Your task to perform on an android device: Search for sushi restaurants on Maps Image 0: 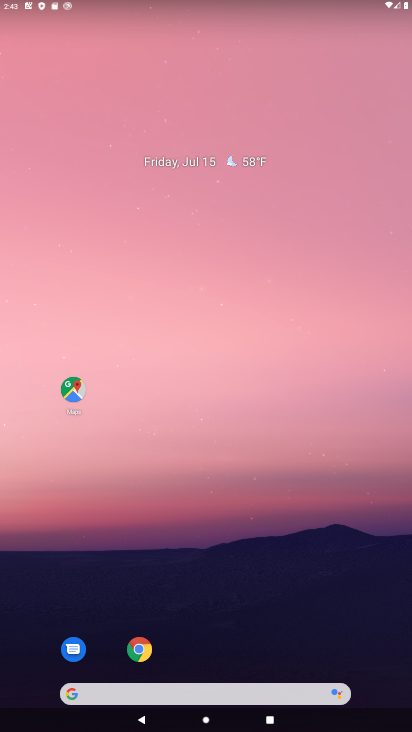
Step 0: drag from (230, 718) to (255, 251)
Your task to perform on an android device: Search for sushi restaurants on Maps Image 1: 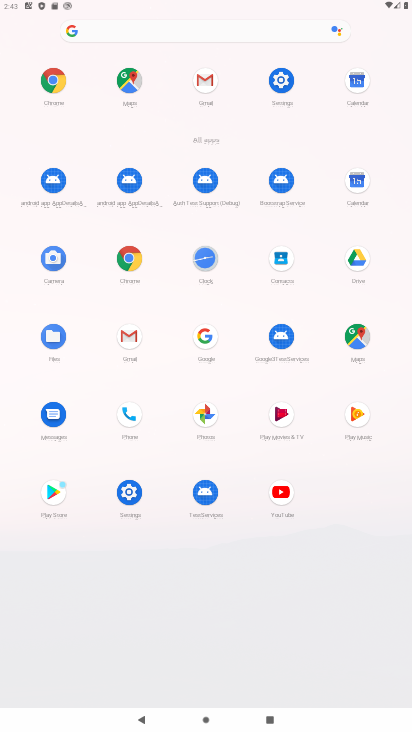
Step 1: click (359, 340)
Your task to perform on an android device: Search for sushi restaurants on Maps Image 2: 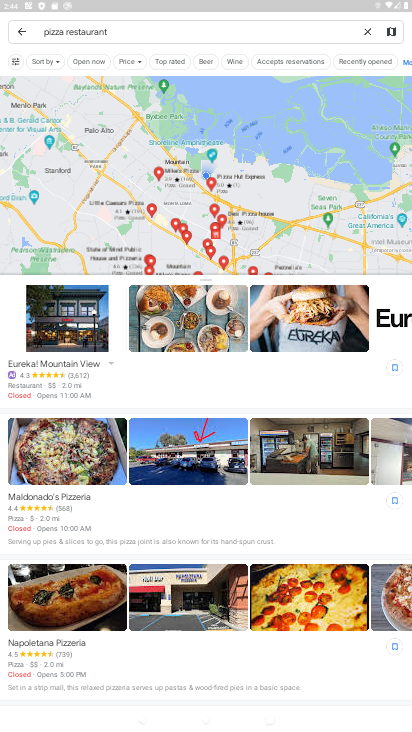
Step 2: click (366, 27)
Your task to perform on an android device: Search for sushi restaurants on Maps Image 3: 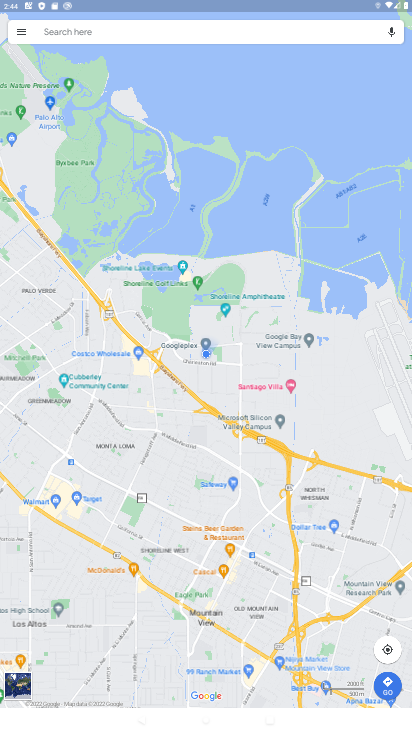
Step 3: click (176, 33)
Your task to perform on an android device: Search for sushi restaurants on Maps Image 4: 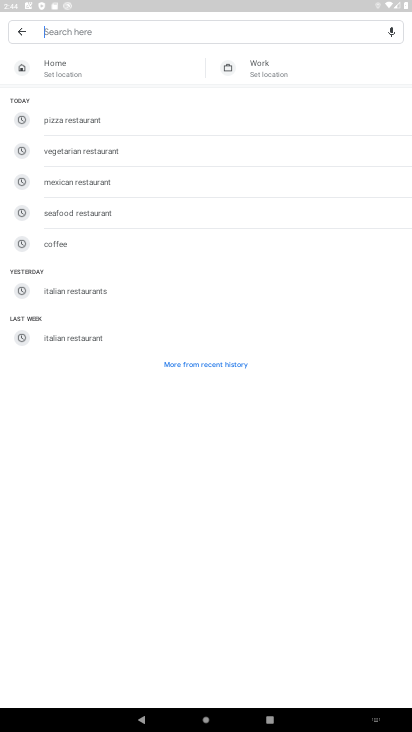
Step 4: type "sushi restaurants"
Your task to perform on an android device: Search for sushi restaurants on Maps Image 5: 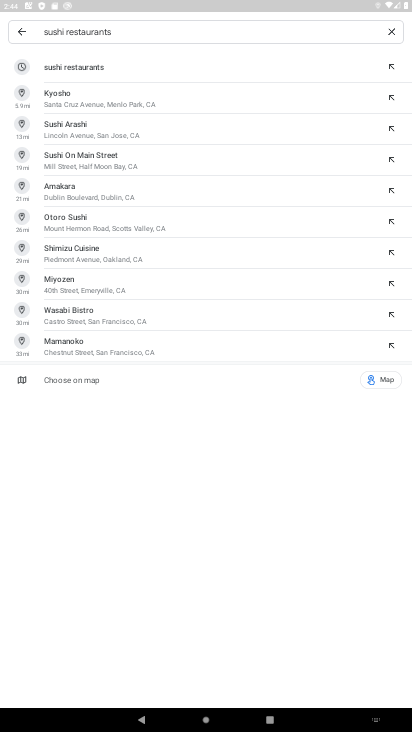
Step 5: click (96, 64)
Your task to perform on an android device: Search for sushi restaurants on Maps Image 6: 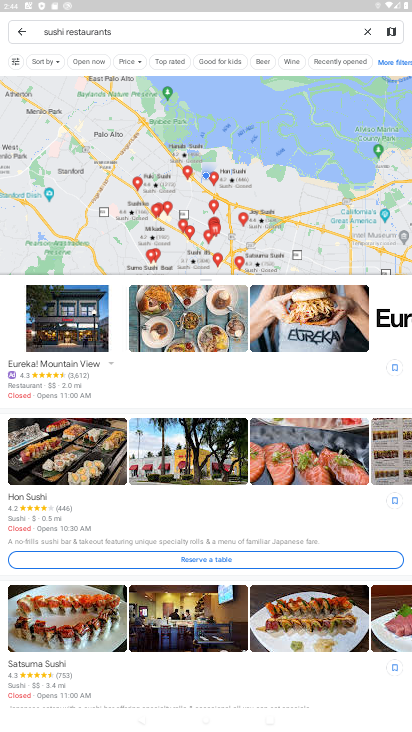
Step 6: task complete